Your task to perform on an android device: turn on priority inbox in the gmail app Image 0: 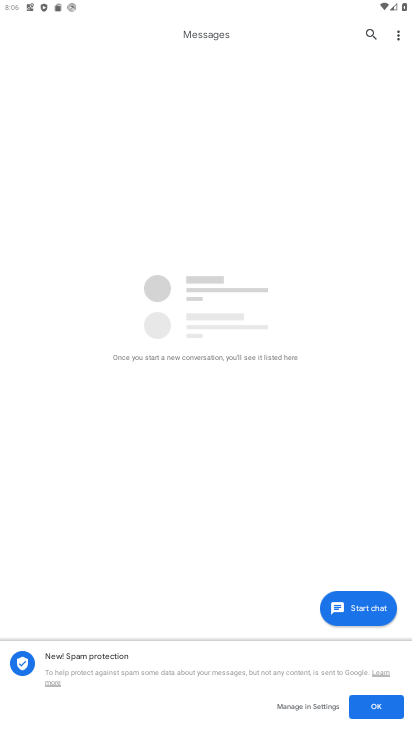
Step 0: press home button
Your task to perform on an android device: turn on priority inbox in the gmail app Image 1: 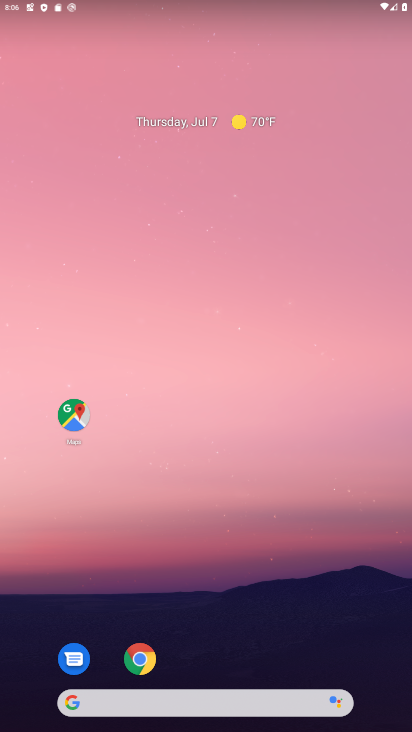
Step 1: drag from (258, 655) to (332, 141)
Your task to perform on an android device: turn on priority inbox in the gmail app Image 2: 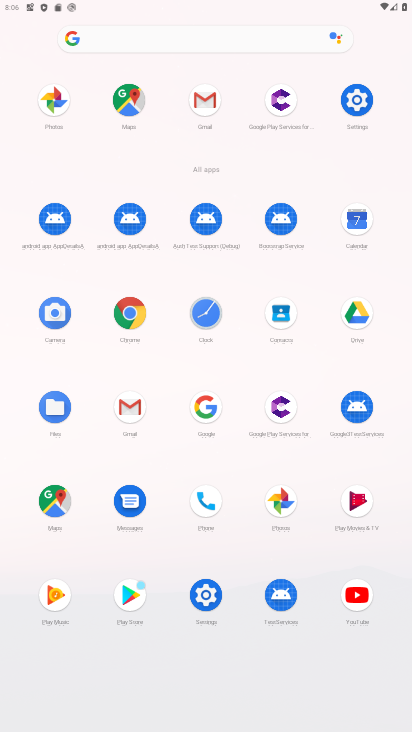
Step 2: click (122, 421)
Your task to perform on an android device: turn on priority inbox in the gmail app Image 3: 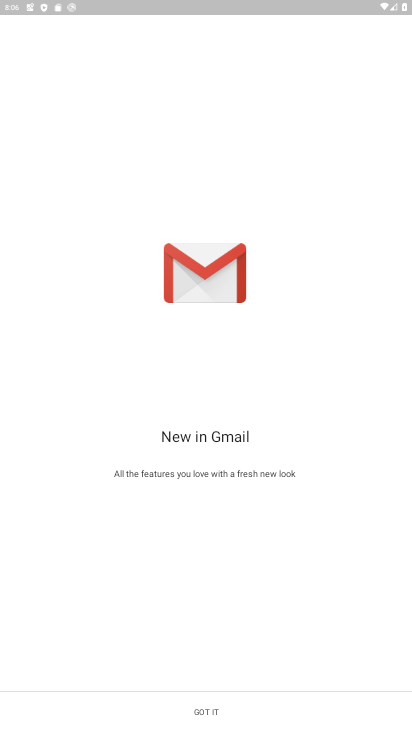
Step 3: click (210, 711)
Your task to perform on an android device: turn on priority inbox in the gmail app Image 4: 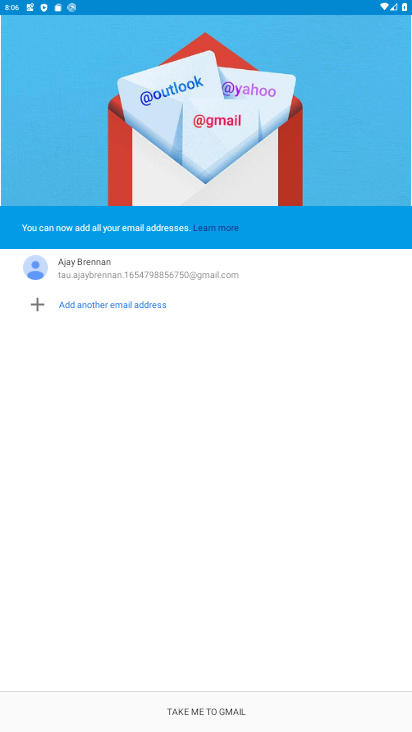
Step 4: click (210, 711)
Your task to perform on an android device: turn on priority inbox in the gmail app Image 5: 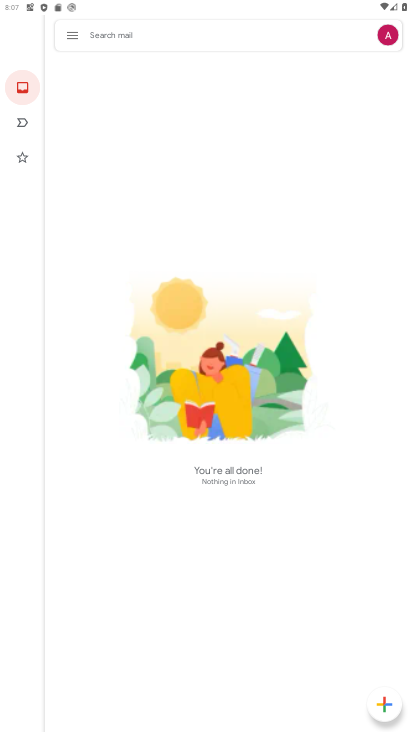
Step 5: click (73, 38)
Your task to perform on an android device: turn on priority inbox in the gmail app Image 6: 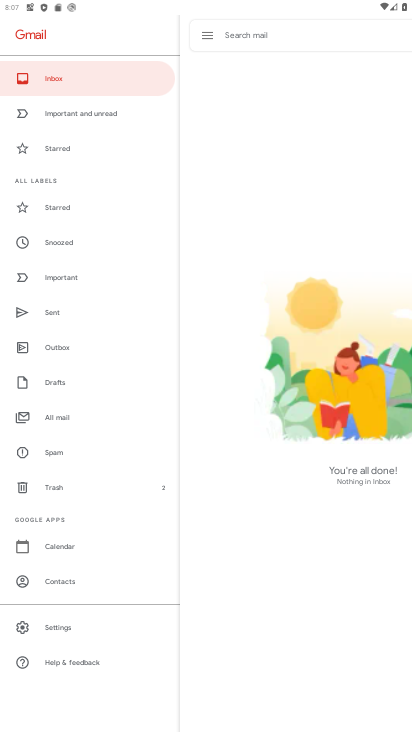
Step 6: drag from (33, 631) to (94, 352)
Your task to perform on an android device: turn on priority inbox in the gmail app Image 7: 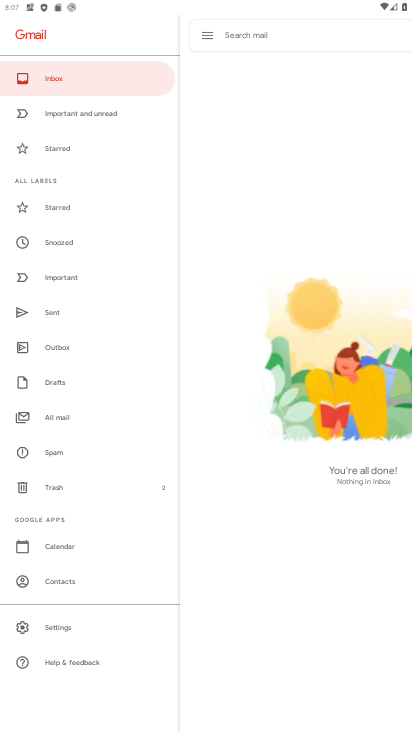
Step 7: click (66, 624)
Your task to perform on an android device: turn on priority inbox in the gmail app Image 8: 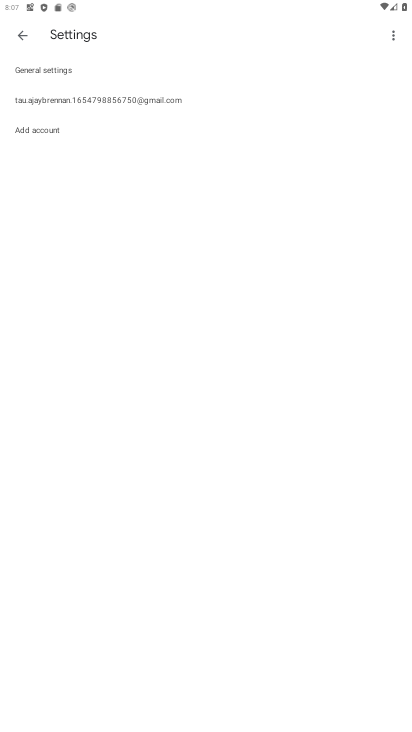
Step 8: click (120, 96)
Your task to perform on an android device: turn on priority inbox in the gmail app Image 9: 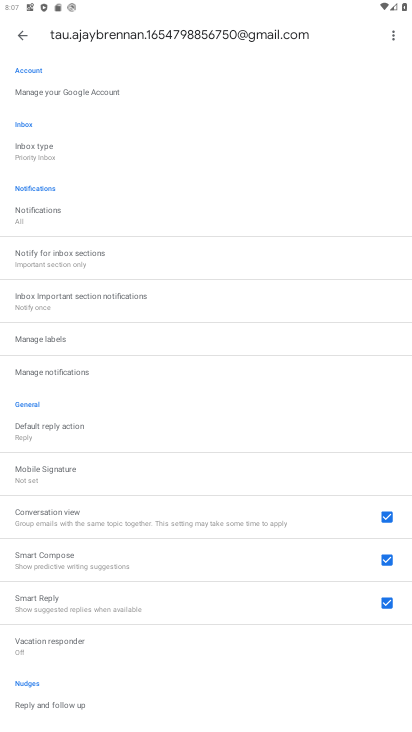
Step 9: click (110, 147)
Your task to perform on an android device: turn on priority inbox in the gmail app Image 10: 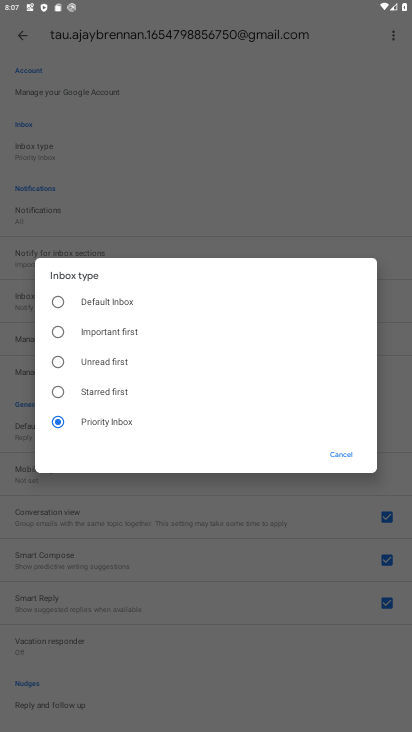
Step 10: task complete